Your task to perform on an android device: Open the phone app and click the voicemail tab. Image 0: 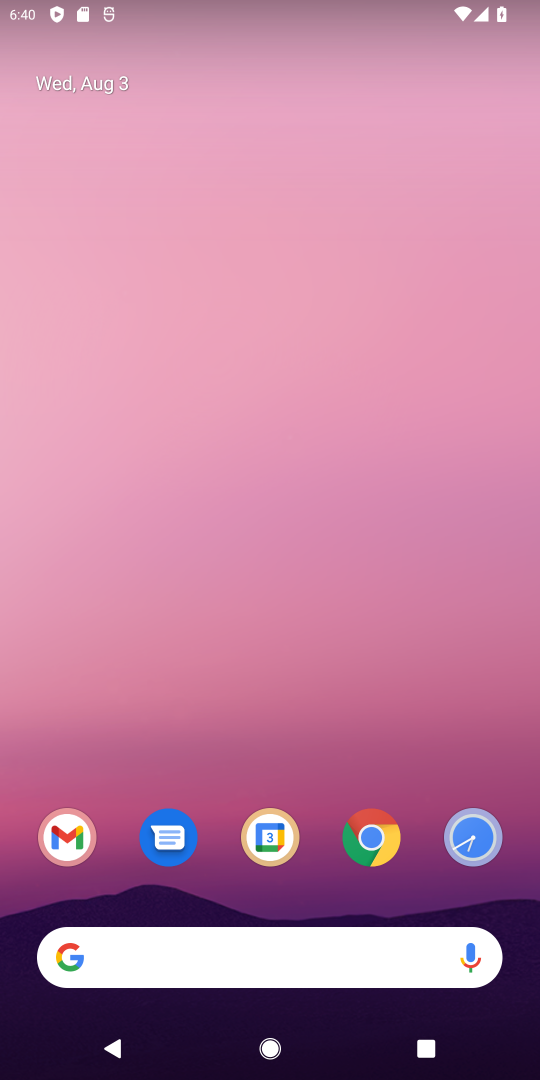
Step 0: press home button
Your task to perform on an android device: Open the phone app and click the voicemail tab. Image 1: 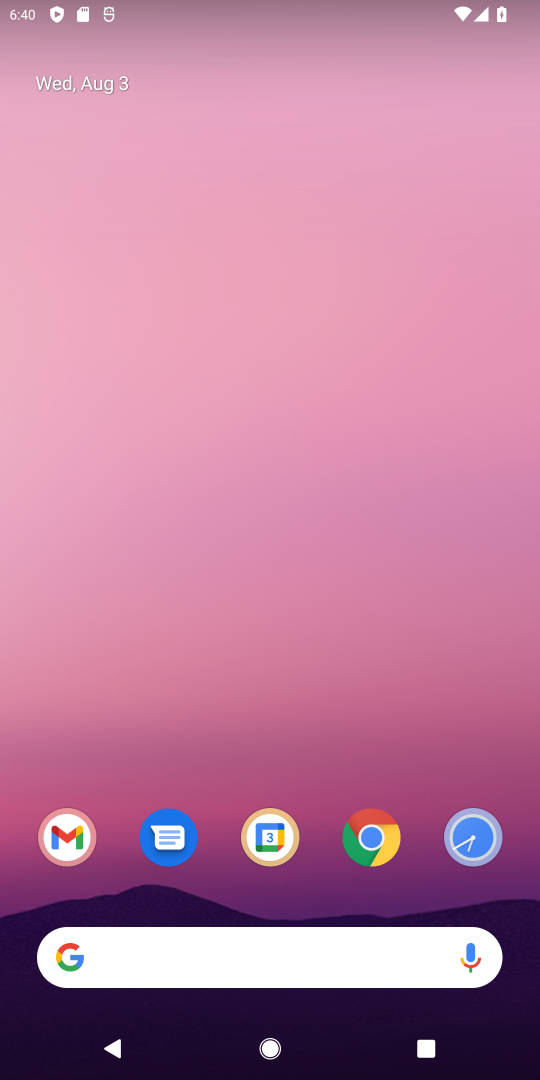
Step 1: drag from (315, 709) to (278, 119)
Your task to perform on an android device: Open the phone app and click the voicemail tab. Image 2: 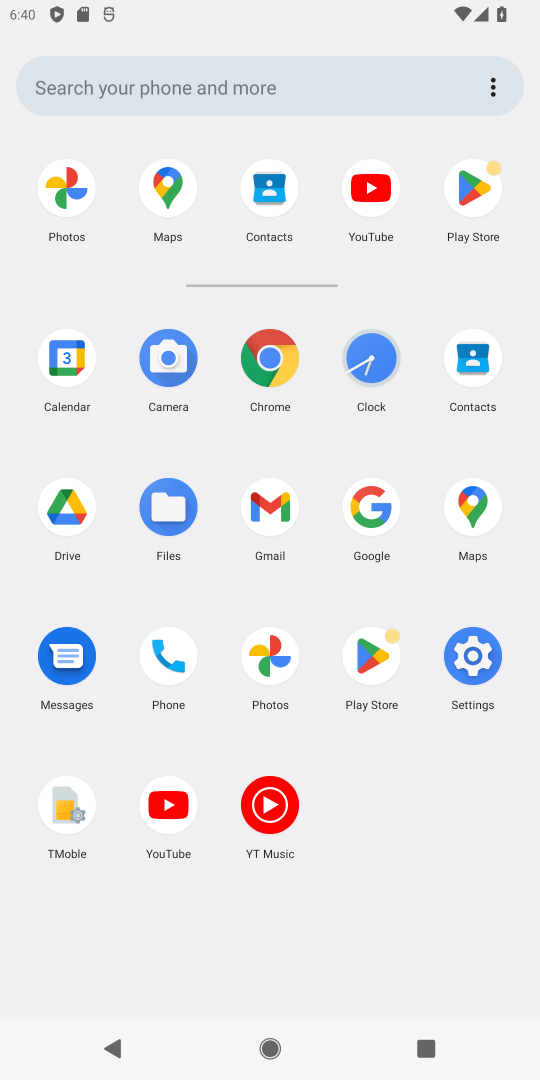
Step 2: click (166, 658)
Your task to perform on an android device: Open the phone app and click the voicemail tab. Image 3: 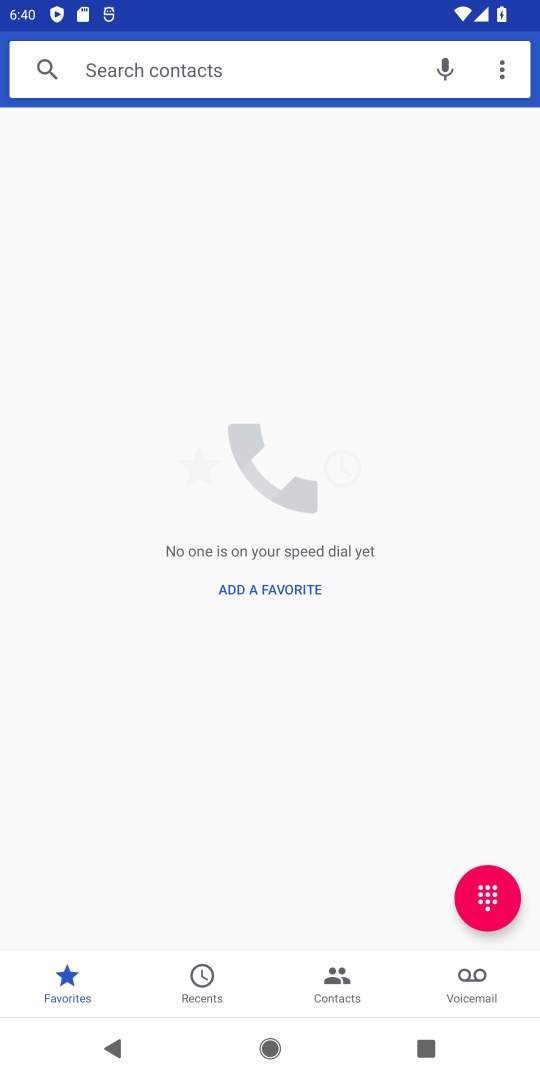
Step 3: click (452, 961)
Your task to perform on an android device: Open the phone app and click the voicemail tab. Image 4: 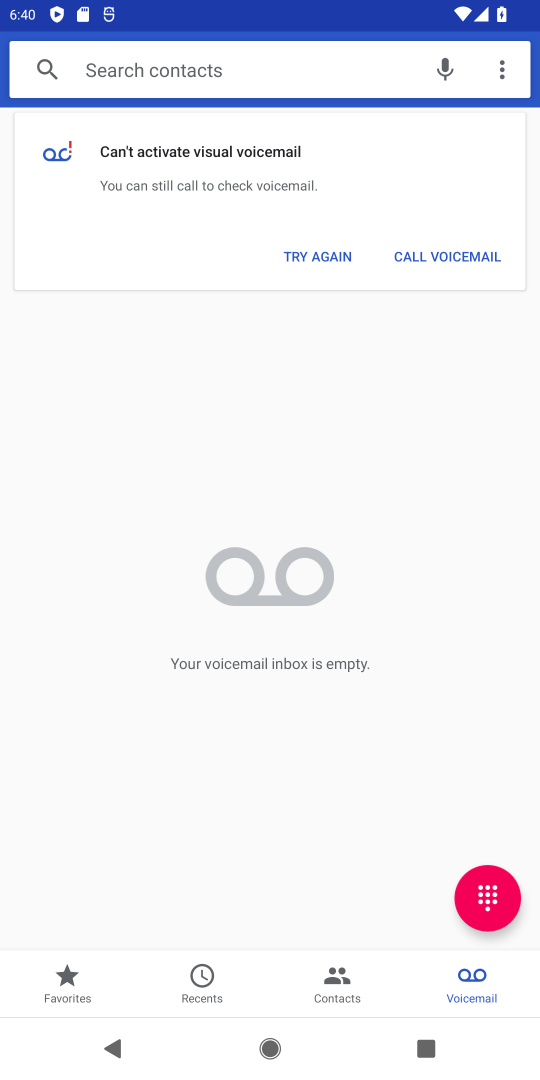
Step 4: task complete